Your task to perform on an android device: Open Maps and search for coffee Image 0: 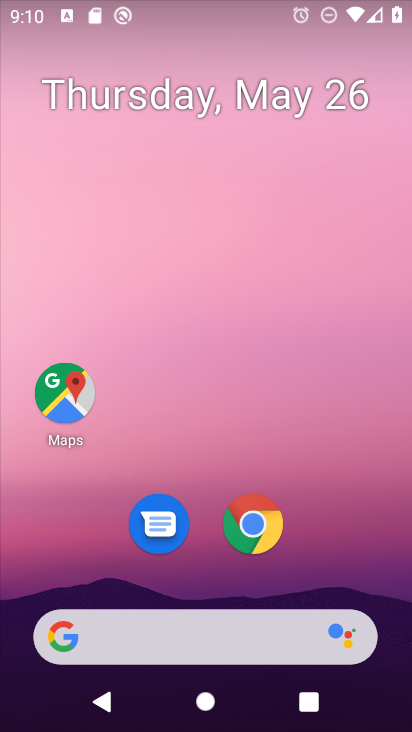
Step 0: click (62, 394)
Your task to perform on an android device: Open Maps and search for coffee Image 1: 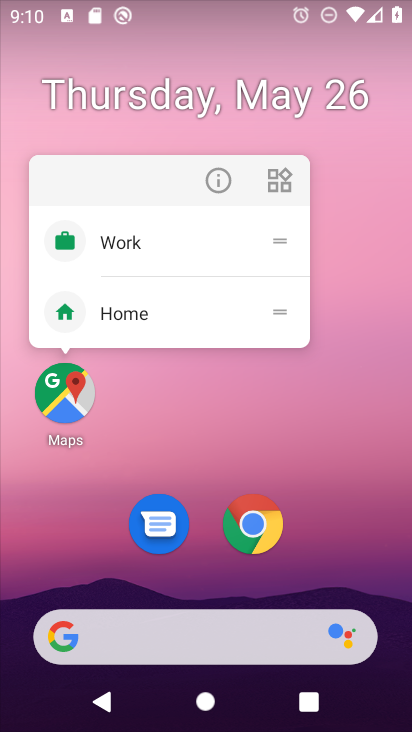
Step 1: click (62, 397)
Your task to perform on an android device: Open Maps and search for coffee Image 2: 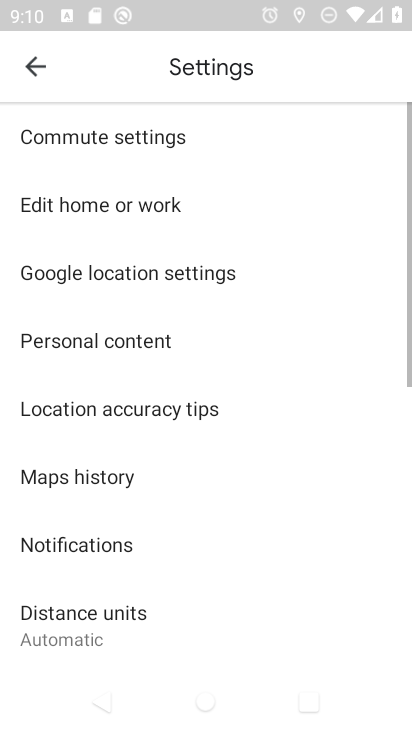
Step 2: click (32, 54)
Your task to perform on an android device: Open Maps and search for coffee Image 3: 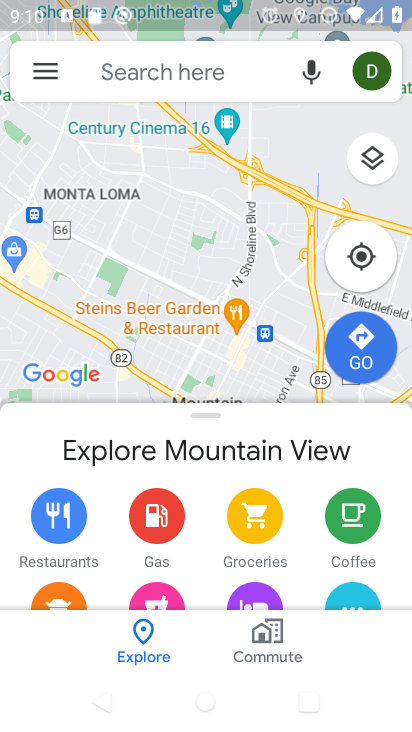
Step 3: click (187, 63)
Your task to perform on an android device: Open Maps and search for coffee Image 4: 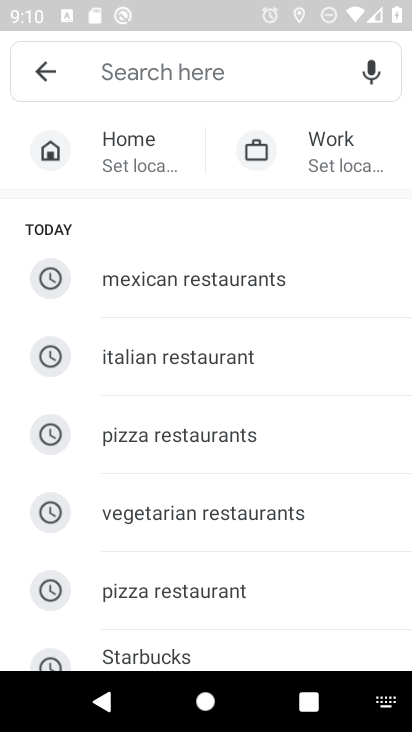
Step 4: drag from (216, 497) to (266, 252)
Your task to perform on an android device: Open Maps and search for coffee Image 5: 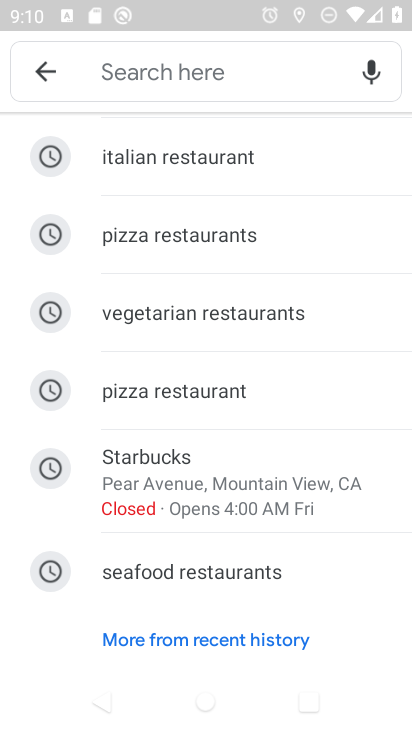
Step 5: drag from (266, 252) to (256, 581)
Your task to perform on an android device: Open Maps and search for coffee Image 6: 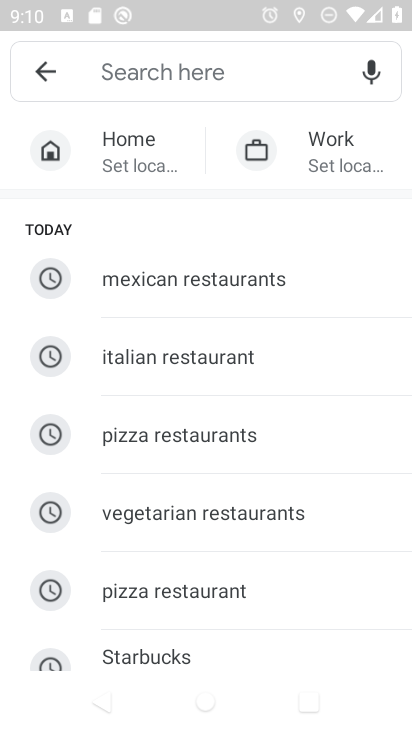
Step 6: click (257, 69)
Your task to perform on an android device: Open Maps and search for coffee Image 7: 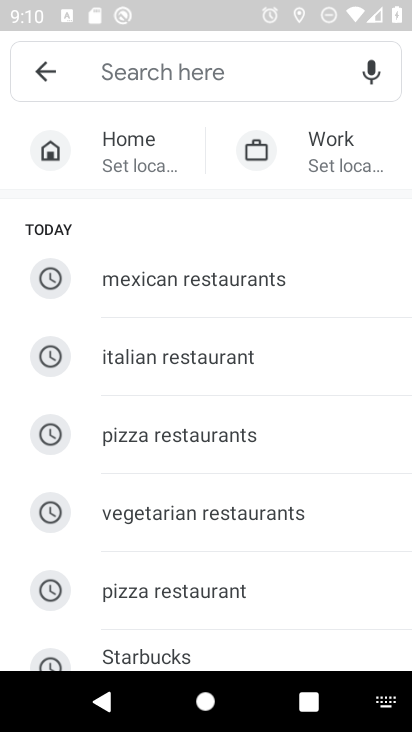
Step 7: type "coffee"
Your task to perform on an android device: Open Maps and search for coffee Image 8: 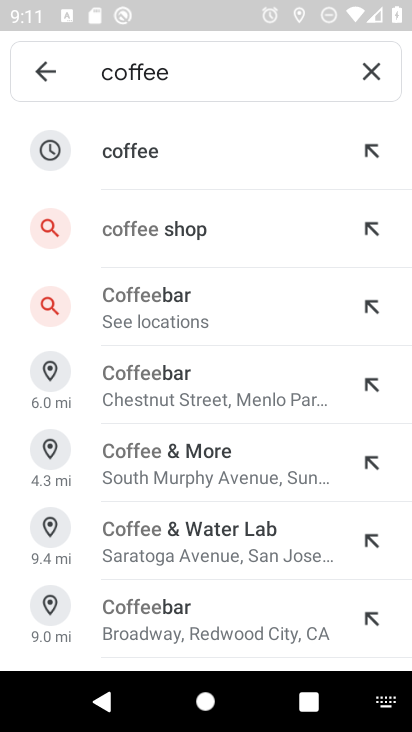
Step 8: click (157, 150)
Your task to perform on an android device: Open Maps and search for coffee Image 9: 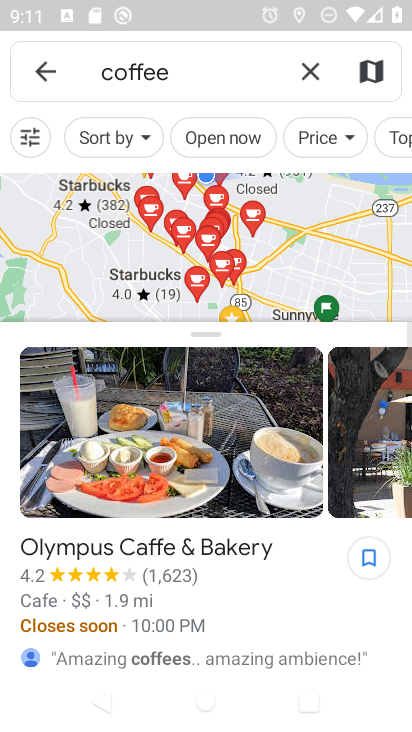
Step 9: task complete